Your task to perform on an android device: Open Reddit.com Image 0: 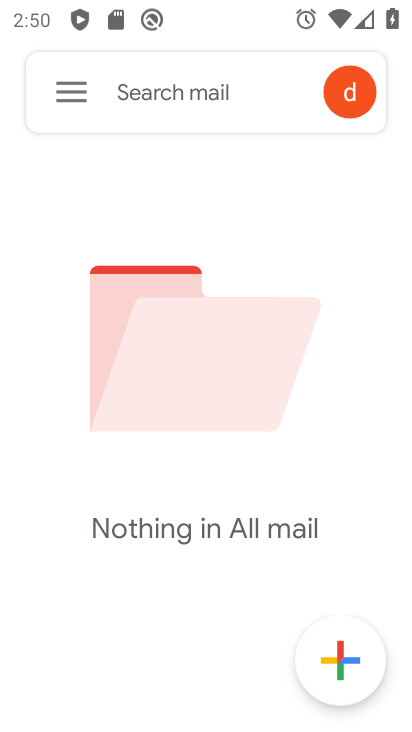
Step 0: press home button
Your task to perform on an android device: Open Reddit.com Image 1: 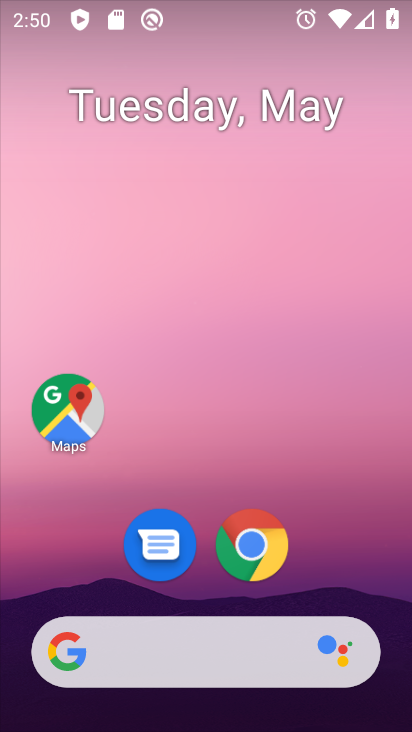
Step 1: click (228, 553)
Your task to perform on an android device: Open Reddit.com Image 2: 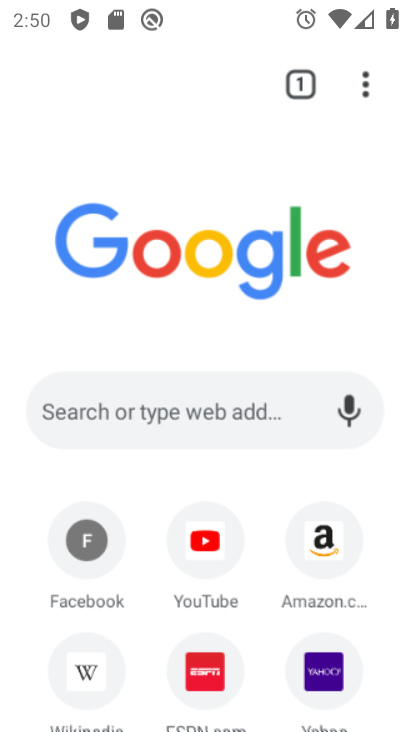
Step 2: click (177, 428)
Your task to perform on an android device: Open Reddit.com Image 3: 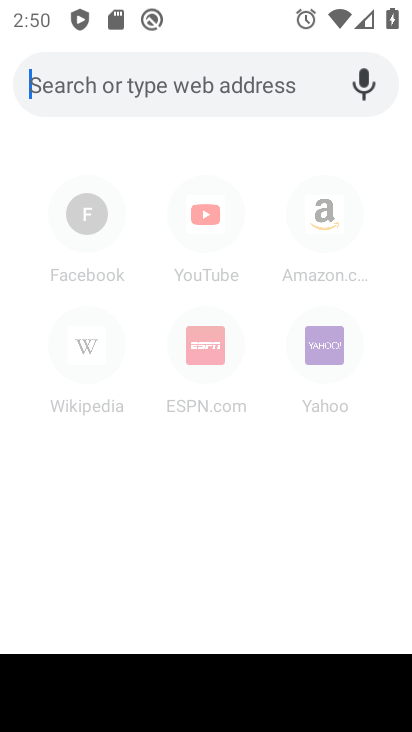
Step 3: type "reddit.com"
Your task to perform on an android device: Open Reddit.com Image 4: 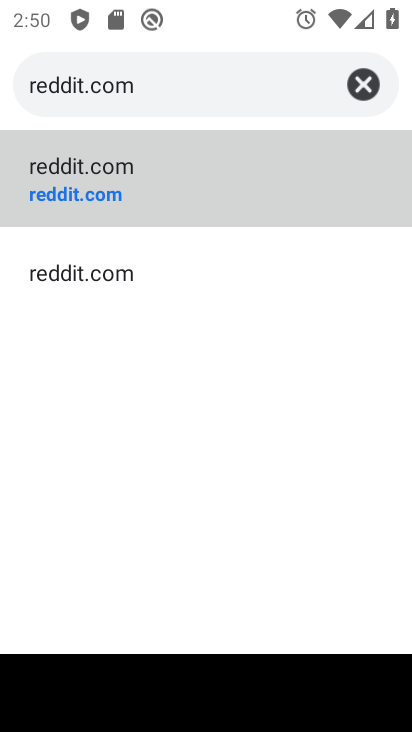
Step 4: click (213, 170)
Your task to perform on an android device: Open Reddit.com Image 5: 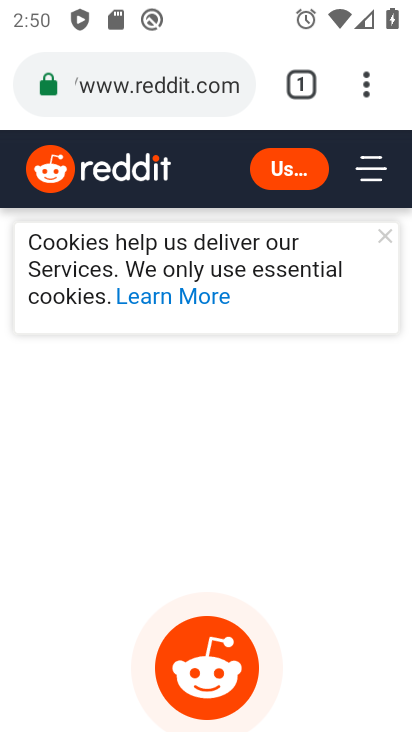
Step 5: task complete